Your task to perform on an android device: Clear all items from cart on newegg.com. Image 0: 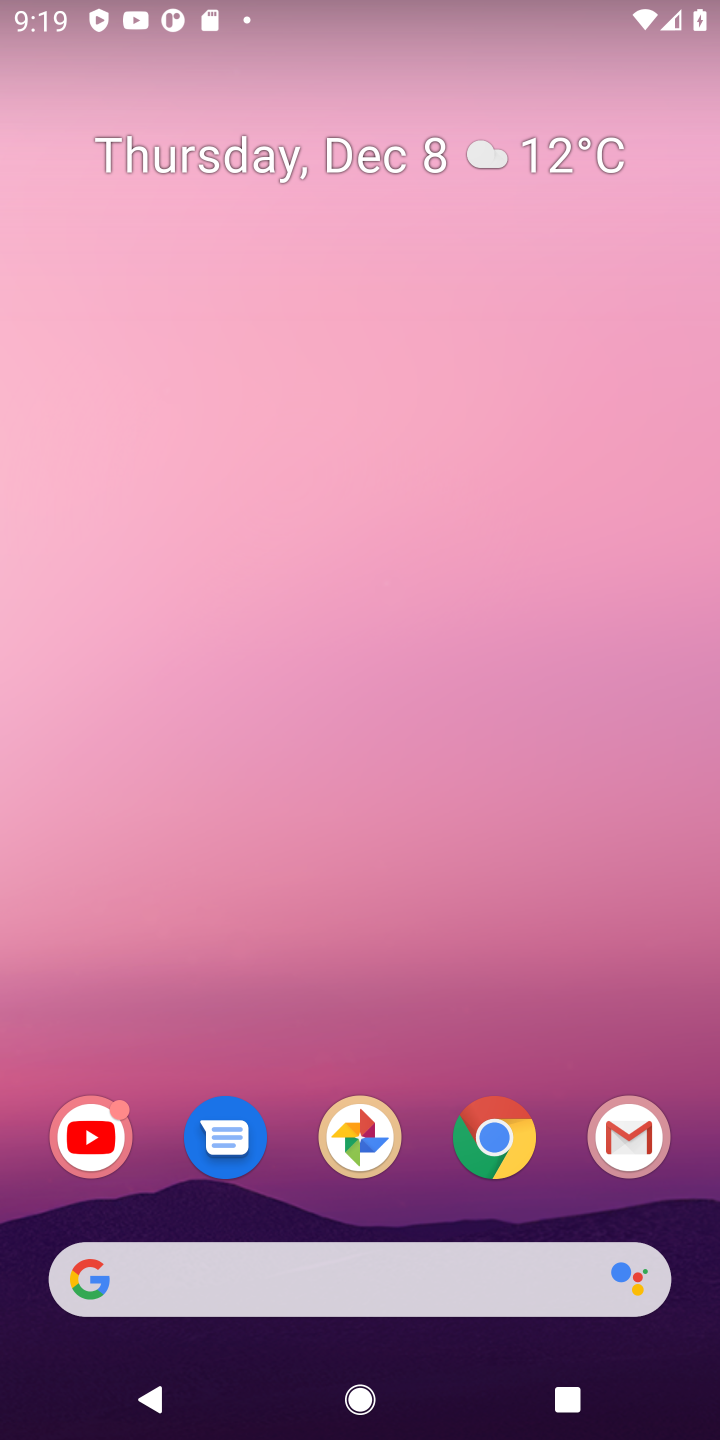
Step 0: click (484, 1157)
Your task to perform on an android device: Clear all items from cart on newegg.com. Image 1: 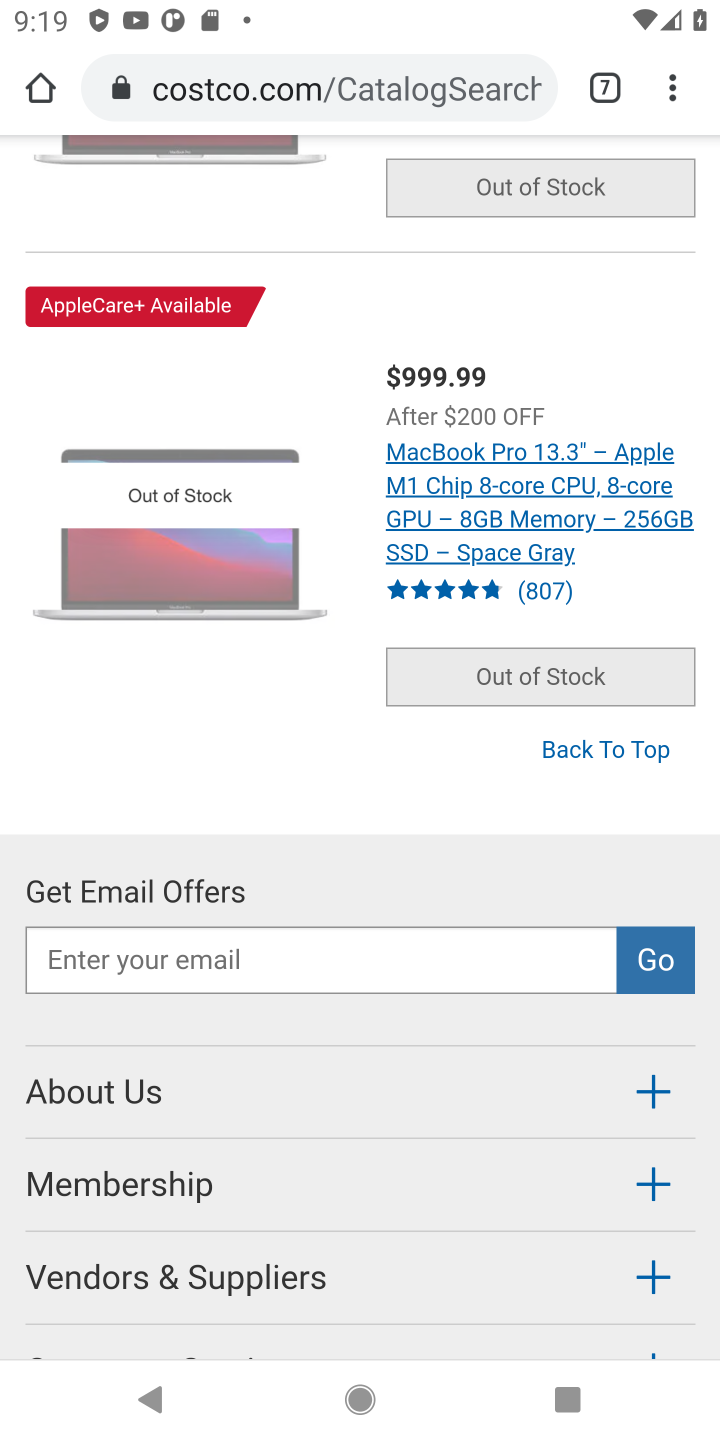
Step 1: click (608, 90)
Your task to perform on an android device: Clear all items from cart on newegg.com. Image 2: 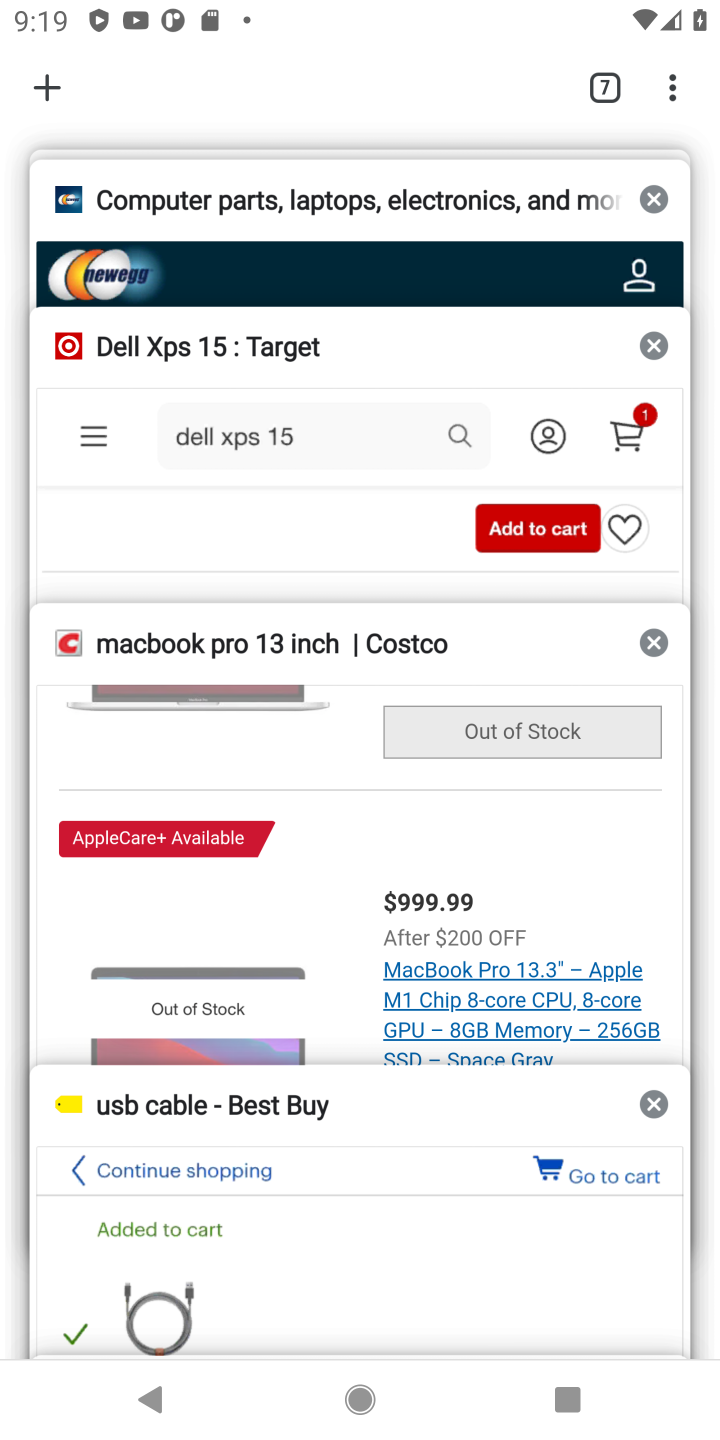
Step 2: click (396, 230)
Your task to perform on an android device: Clear all items from cart on newegg.com. Image 3: 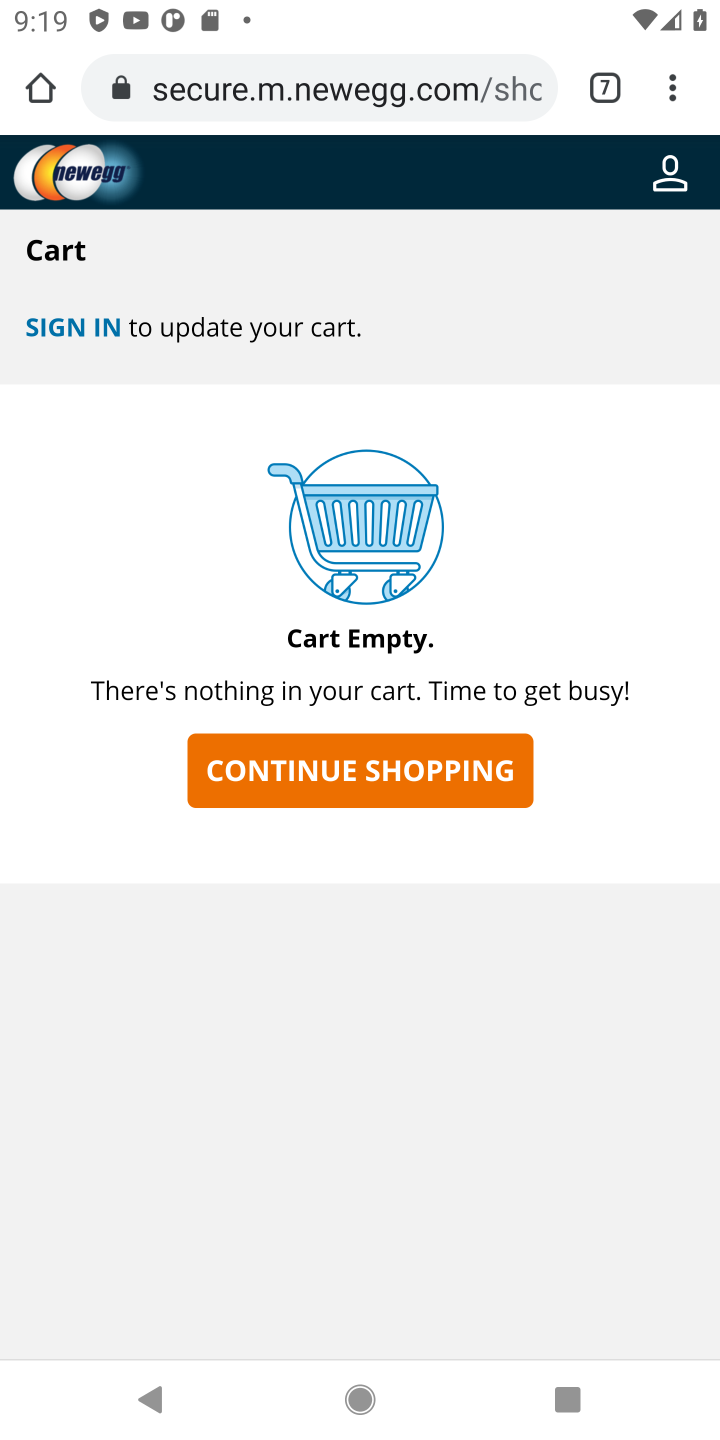
Step 3: click (321, 769)
Your task to perform on an android device: Clear all items from cart on newegg.com. Image 4: 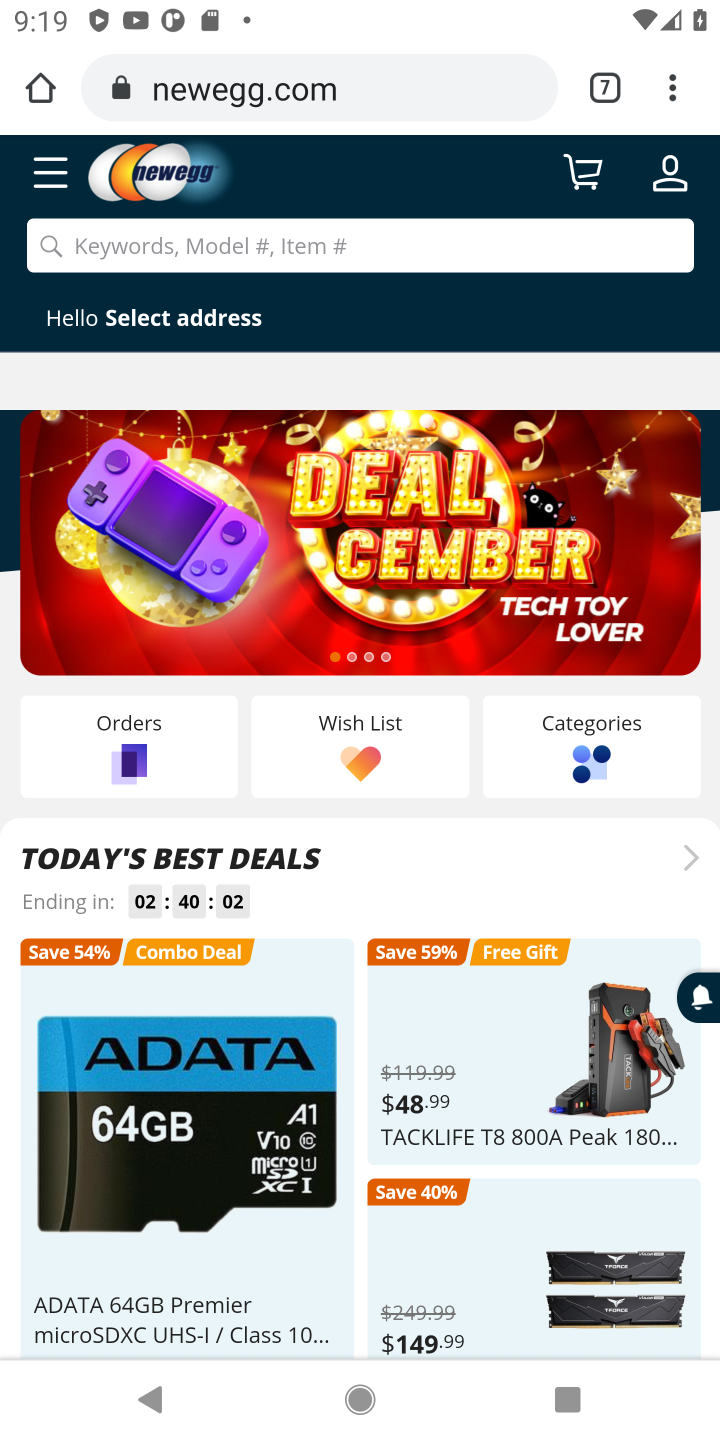
Step 4: click (593, 177)
Your task to perform on an android device: Clear all items from cart on newegg.com. Image 5: 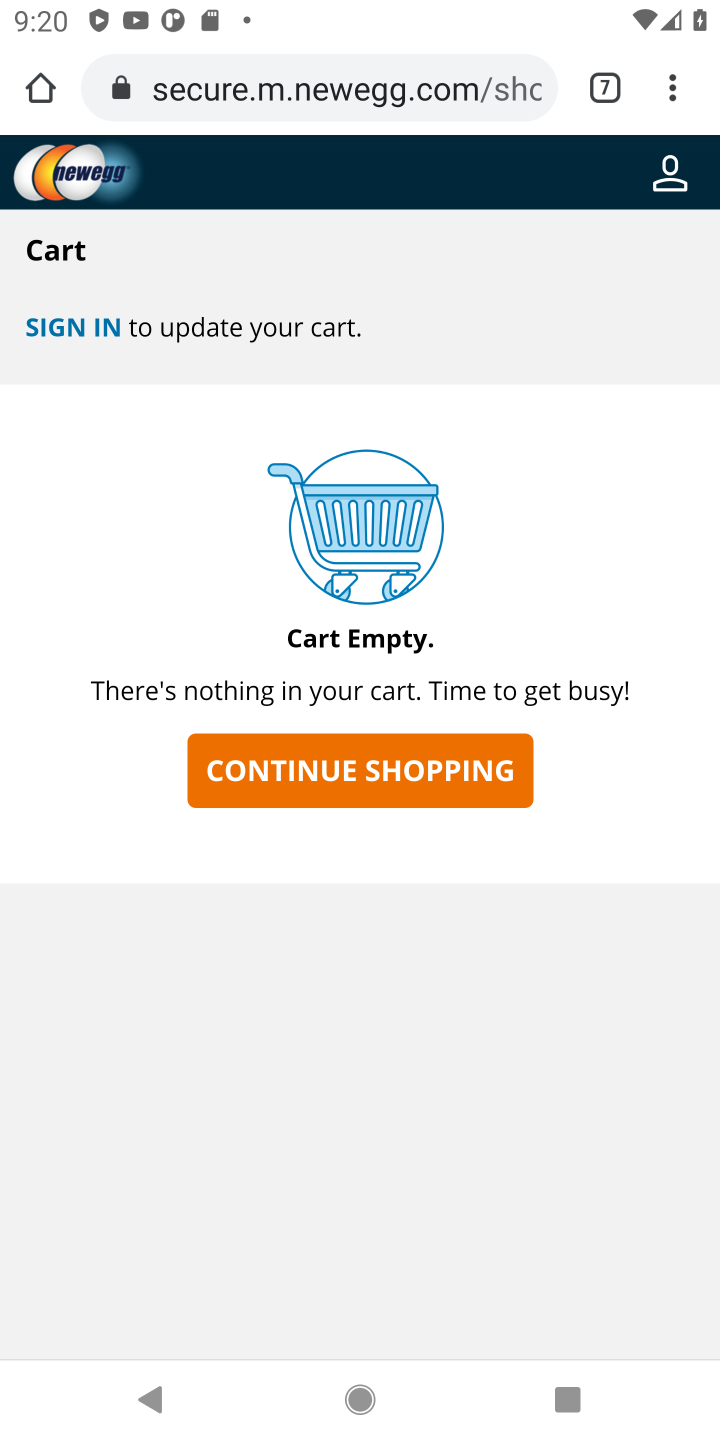
Step 5: task complete